Your task to perform on an android device: What's on my calendar tomorrow? Image 0: 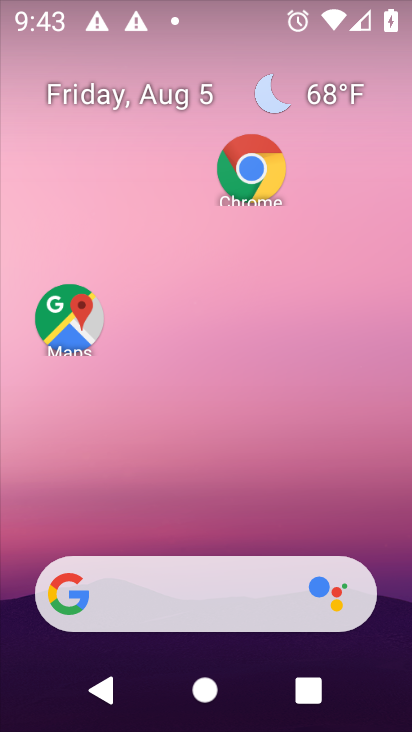
Step 0: drag from (199, 528) to (184, 162)
Your task to perform on an android device: What's on my calendar tomorrow? Image 1: 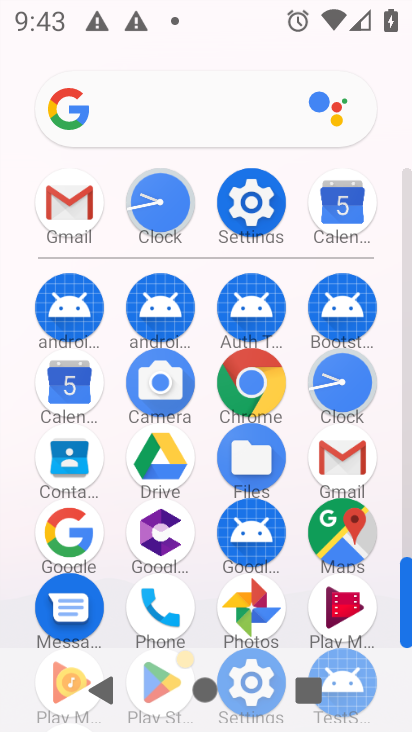
Step 1: click (346, 231)
Your task to perform on an android device: What's on my calendar tomorrow? Image 2: 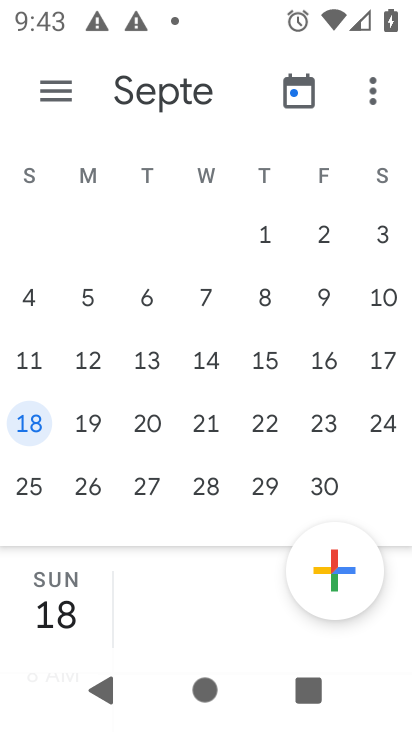
Step 2: drag from (50, 314) to (355, 329)
Your task to perform on an android device: What's on my calendar tomorrow? Image 3: 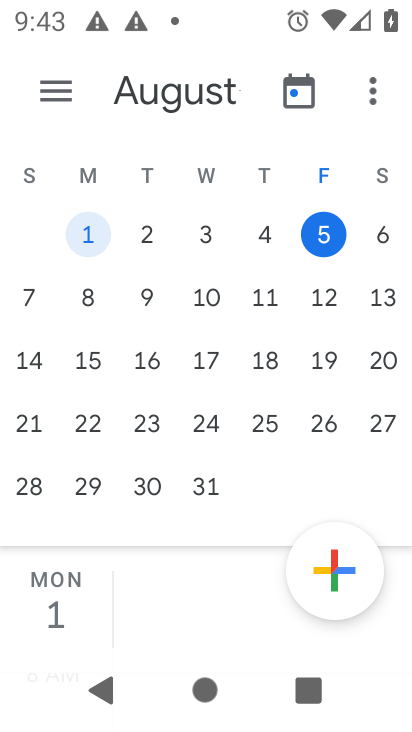
Step 3: click (361, 240)
Your task to perform on an android device: What's on my calendar tomorrow? Image 4: 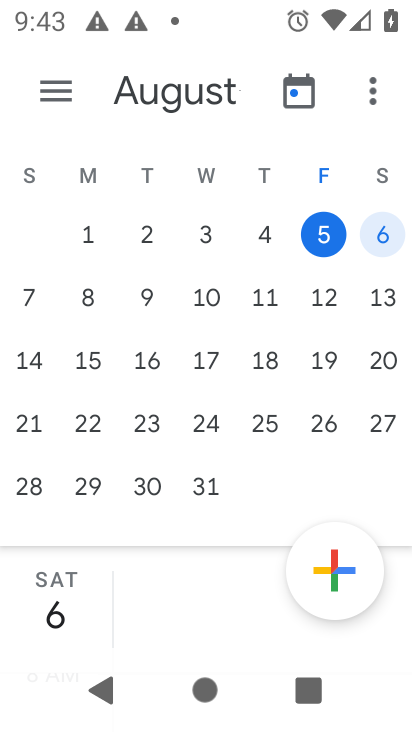
Step 4: click (372, 242)
Your task to perform on an android device: What's on my calendar tomorrow? Image 5: 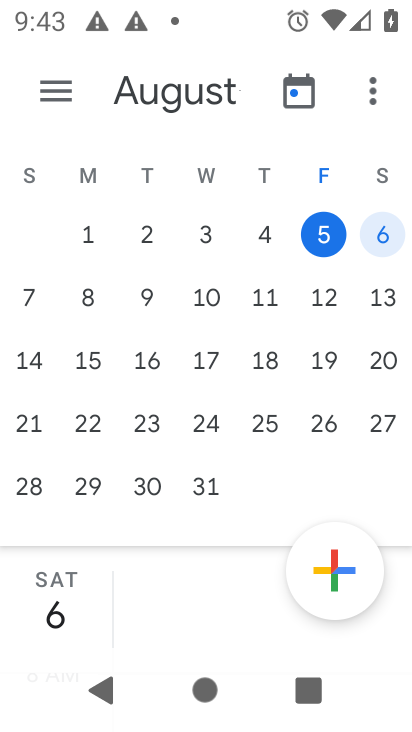
Step 5: task complete